Your task to perform on an android device: Is it going to rain this weekend? Image 0: 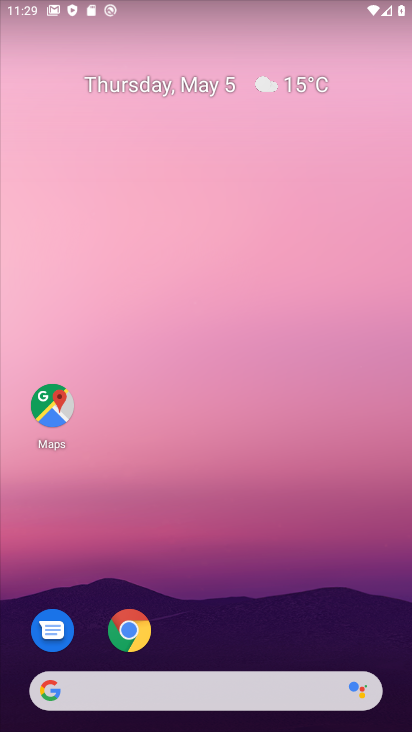
Step 0: drag from (223, 643) to (252, 255)
Your task to perform on an android device: Is it going to rain this weekend? Image 1: 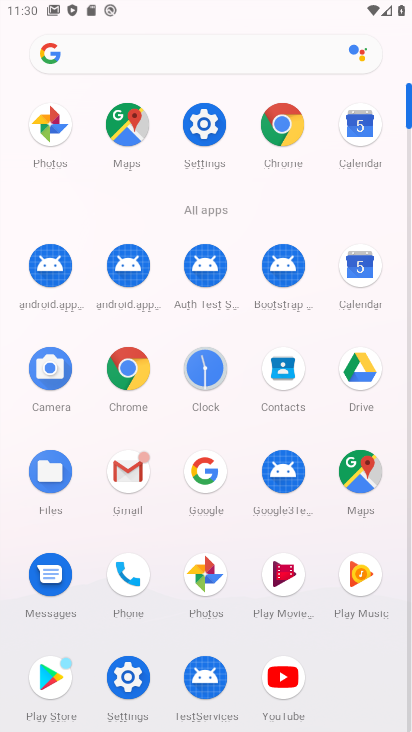
Step 1: click (128, 362)
Your task to perform on an android device: Is it going to rain this weekend? Image 2: 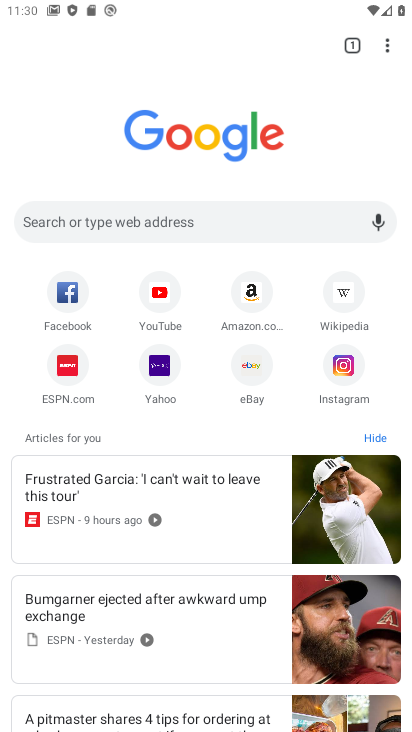
Step 2: click (115, 216)
Your task to perform on an android device: Is it going to rain this weekend? Image 3: 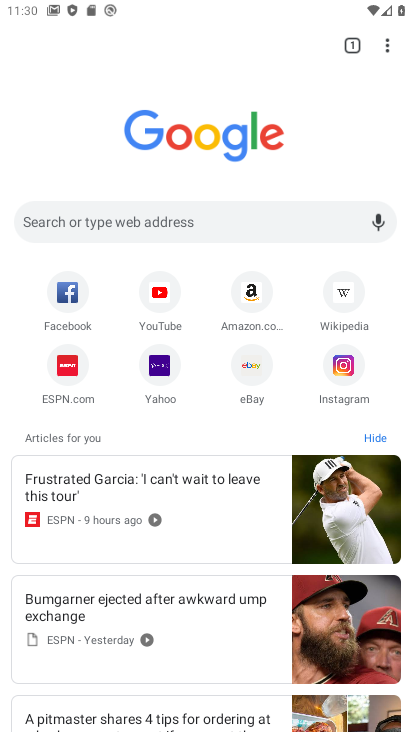
Step 3: click (115, 216)
Your task to perform on an android device: Is it going to rain this weekend? Image 4: 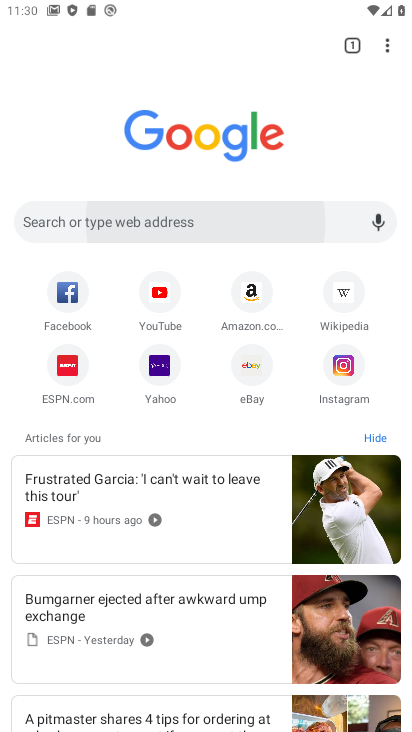
Step 4: click (115, 216)
Your task to perform on an android device: Is it going to rain this weekend? Image 5: 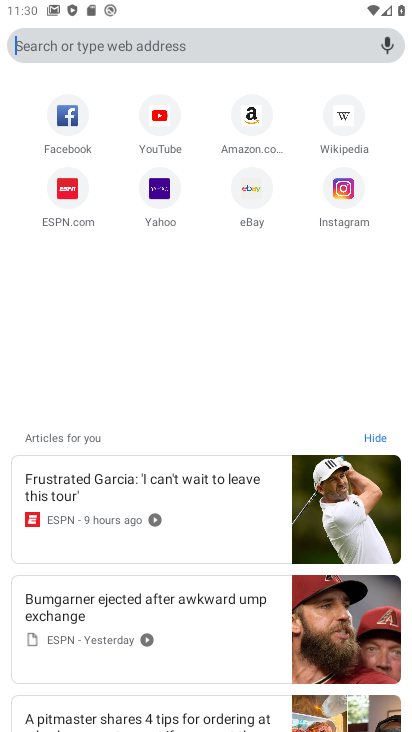
Step 5: click (115, 216)
Your task to perform on an android device: Is it going to rain this weekend? Image 6: 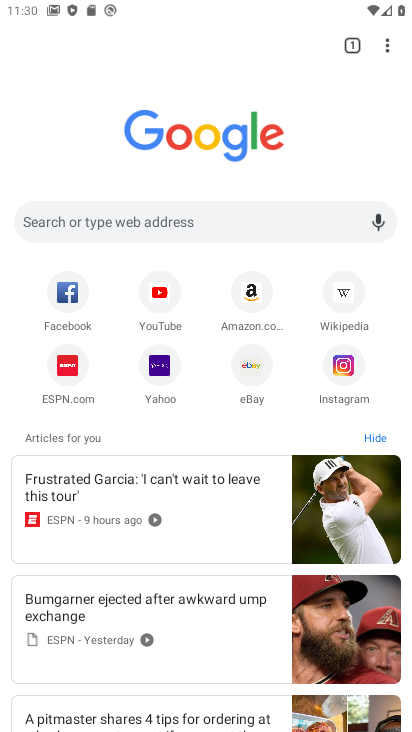
Step 6: click (143, 216)
Your task to perform on an android device: Is it going to rain this weekend? Image 7: 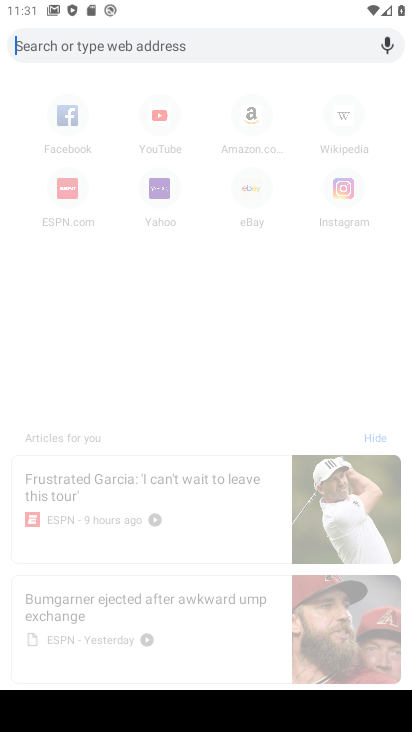
Step 7: type "Is it going to rain this weekend?"
Your task to perform on an android device: Is it going to rain this weekend? Image 8: 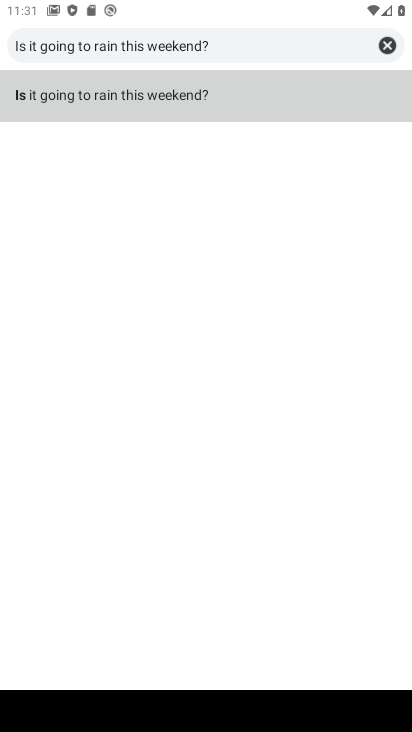
Step 8: click (264, 85)
Your task to perform on an android device: Is it going to rain this weekend? Image 9: 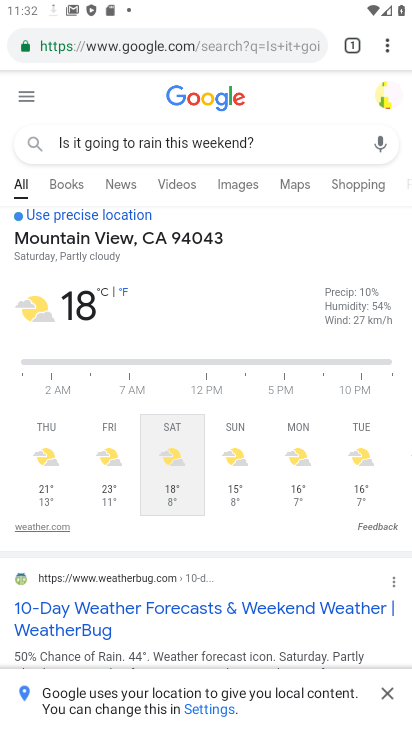
Step 9: task complete